Your task to perform on an android device: find photos in the google photos app Image 0: 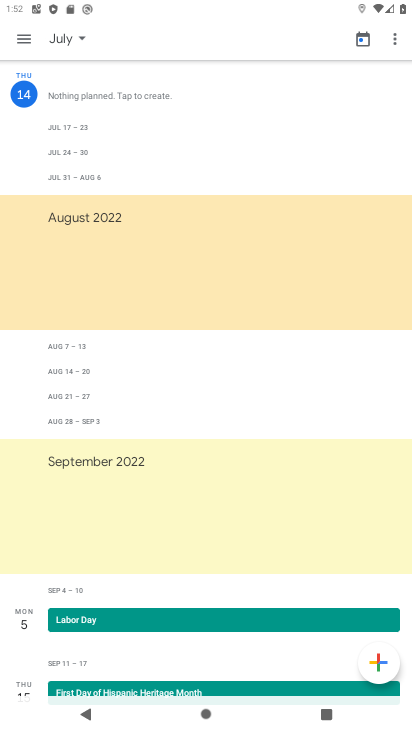
Step 0: press home button
Your task to perform on an android device: find photos in the google photos app Image 1: 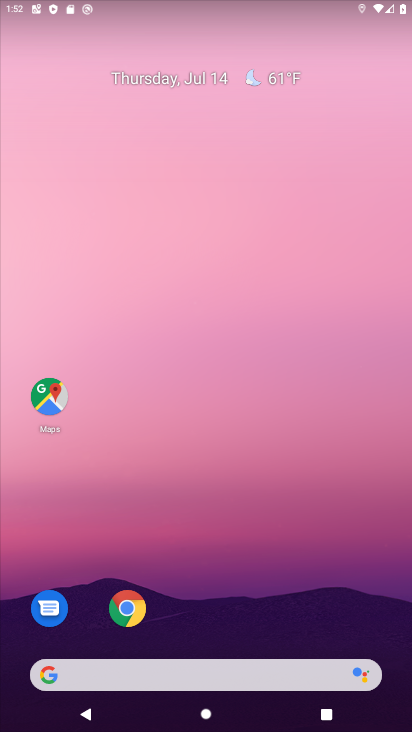
Step 1: drag from (239, 672) to (174, 180)
Your task to perform on an android device: find photos in the google photos app Image 2: 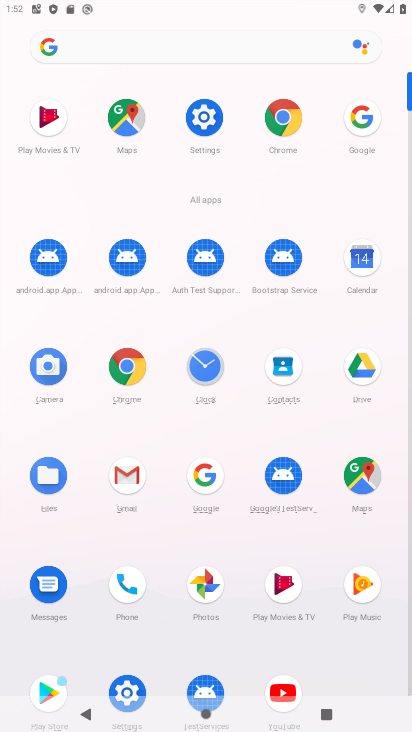
Step 2: drag from (178, 677) to (154, 433)
Your task to perform on an android device: find photos in the google photos app Image 3: 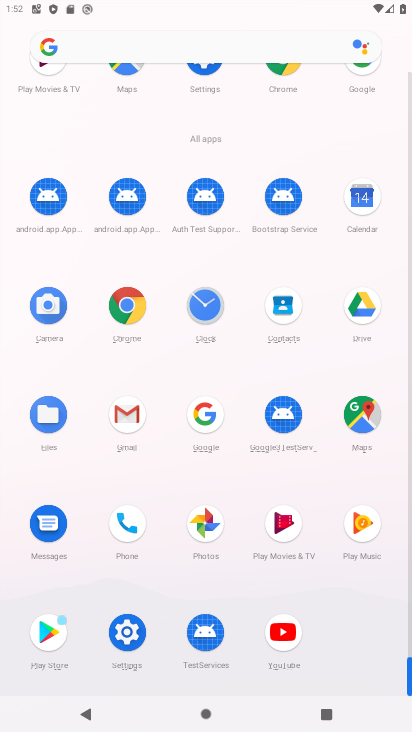
Step 3: click (209, 526)
Your task to perform on an android device: find photos in the google photos app Image 4: 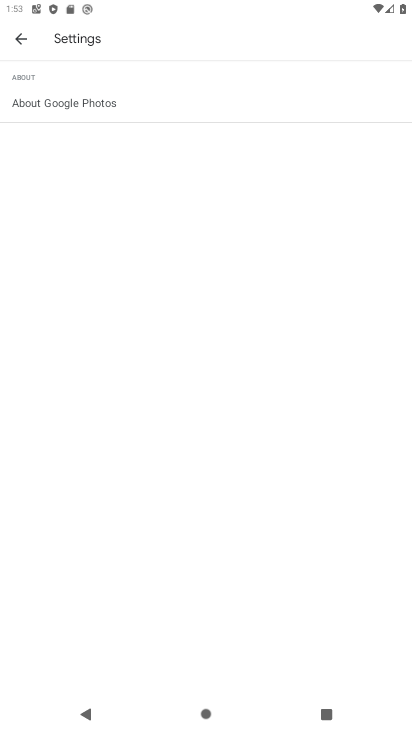
Step 4: press back button
Your task to perform on an android device: find photos in the google photos app Image 5: 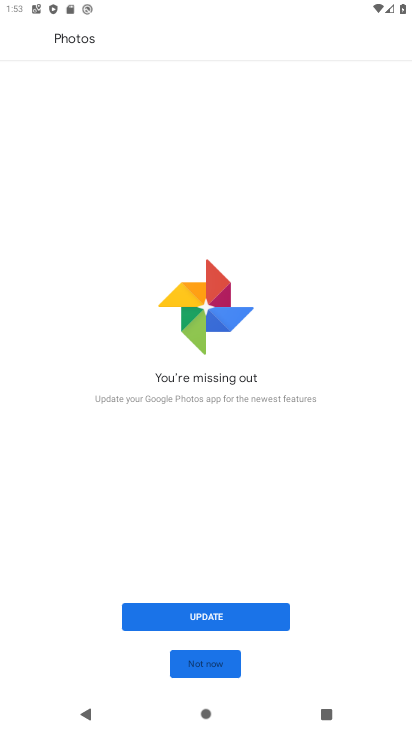
Step 5: click (200, 613)
Your task to perform on an android device: find photos in the google photos app Image 6: 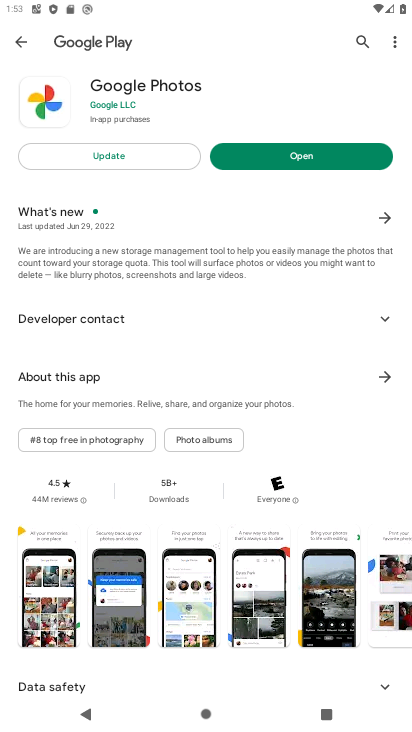
Step 6: click (122, 155)
Your task to perform on an android device: find photos in the google photos app Image 7: 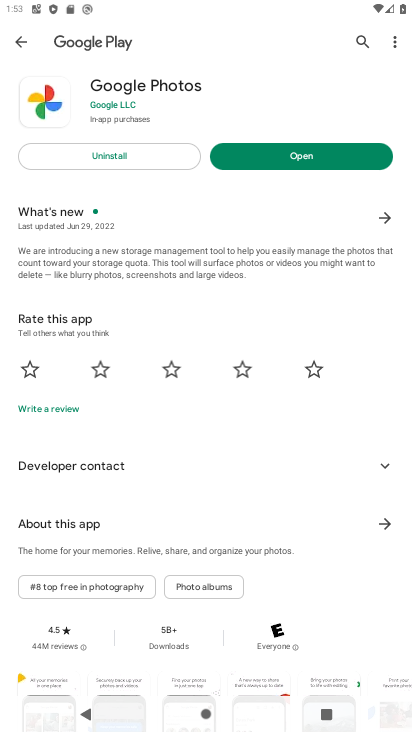
Step 7: click (301, 155)
Your task to perform on an android device: find photos in the google photos app Image 8: 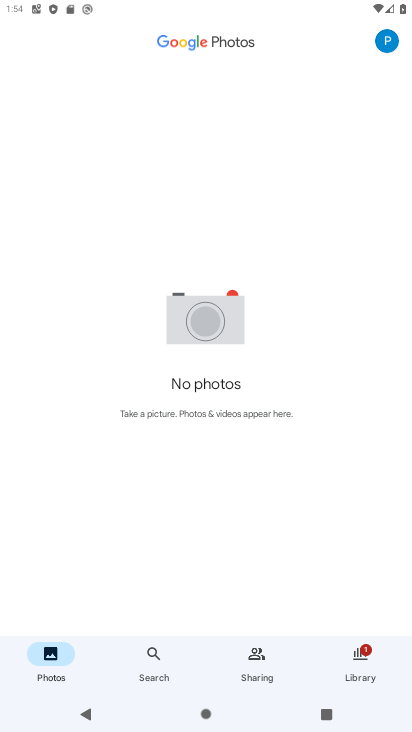
Step 8: click (154, 650)
Your task to perform on an android device: find photos in the google photos app Image 9: 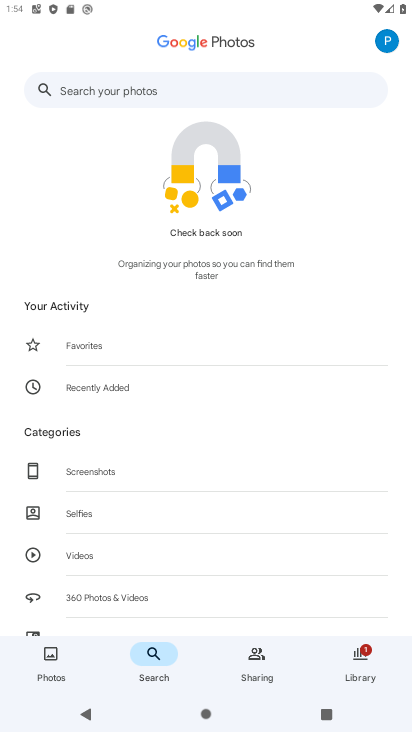
Step 9: click (73, 348)
Your task to perform on an android device: find photos in the google photos app Image 10: 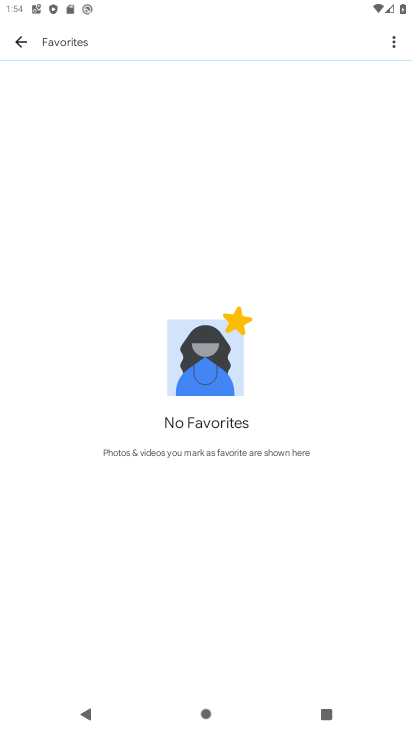
Step 10: press back button
Your task to perform on an android device: find photos in the google photos app Image 11: 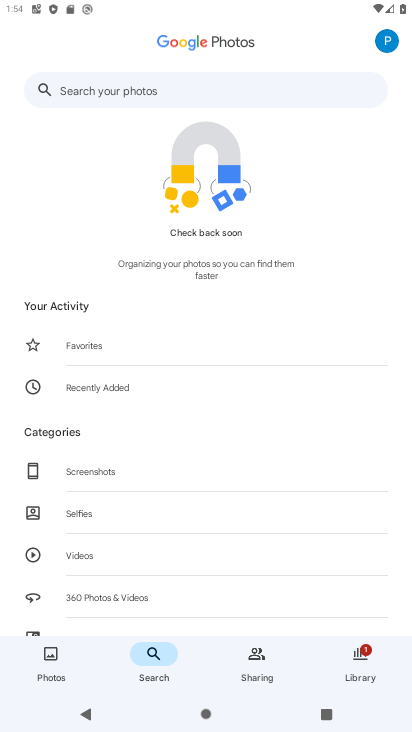
Step 11: click (123, 395)
Your task to perform on an android device: find photos in the google photos app Image 12: 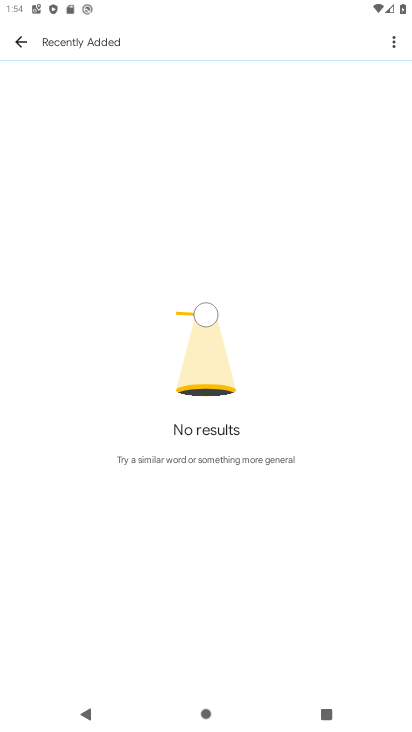
Step 12: press back button
Your task to perform on an android device: find photos in the google photos app Image 13: 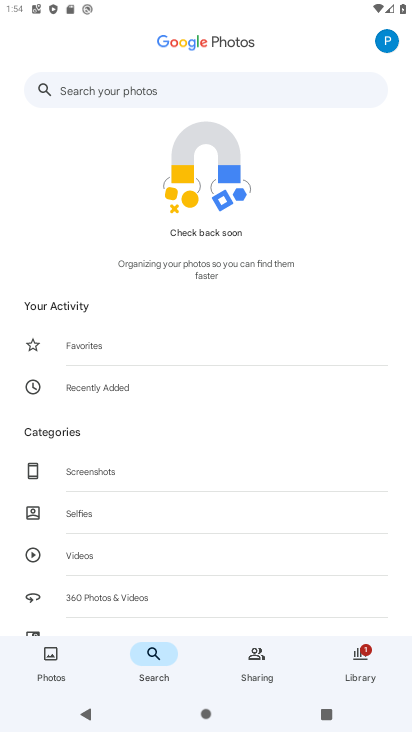
Step 13: click (90, 475)
Your task to perform on an android device: find photos in the google photos app Image 14: 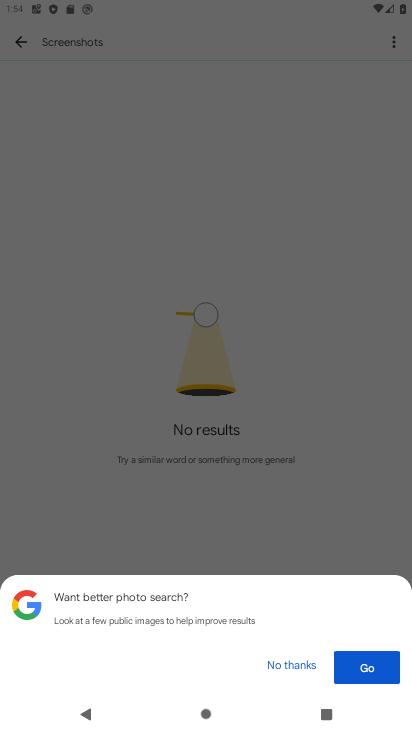
Step 14: click (293, 669)
Your task to perform on an android device: find photos in the google photos app Image 15: 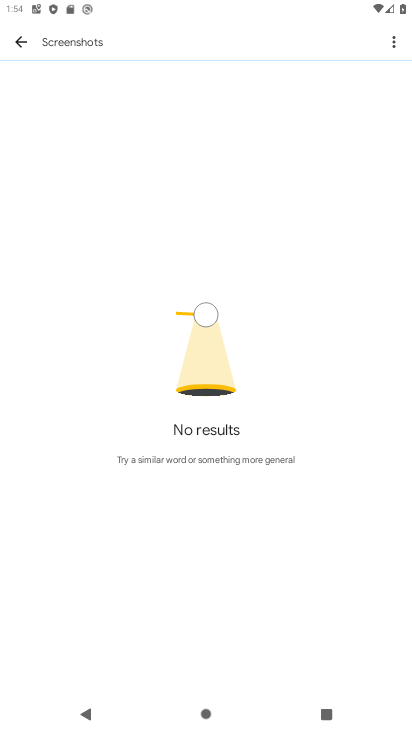
Step 15: press back button
Your task to perform on an android device: find photos in the google photos app Image 16: 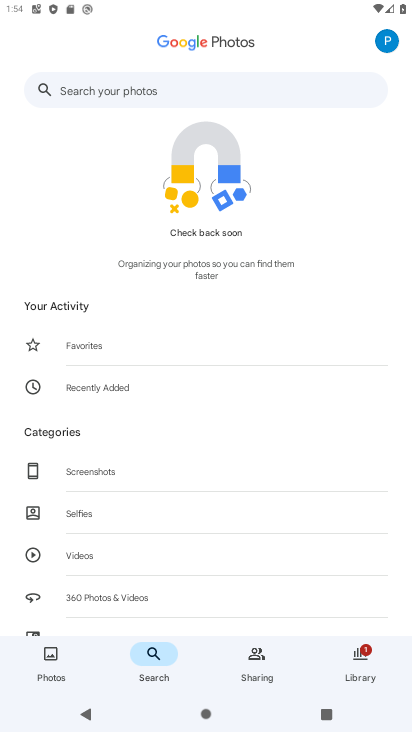
Step 16: drag from (110, 602) to (171, 429)
Your task to perform on an android device: find photos in the google photos app Image 17: 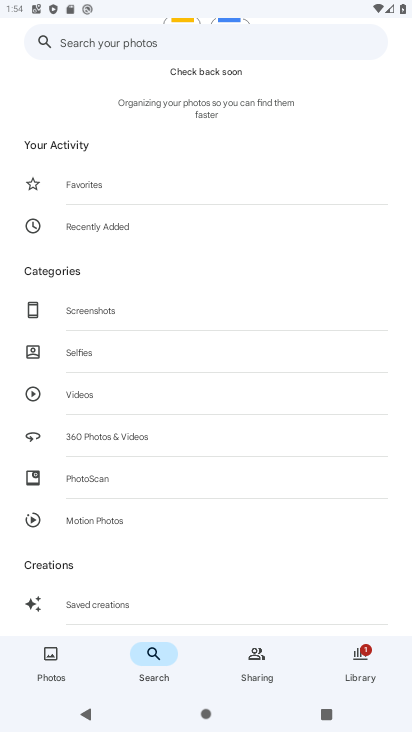
Step 17: click (107, 519)
Your task to perform on an android device: find photos in the google photos app Image 18: 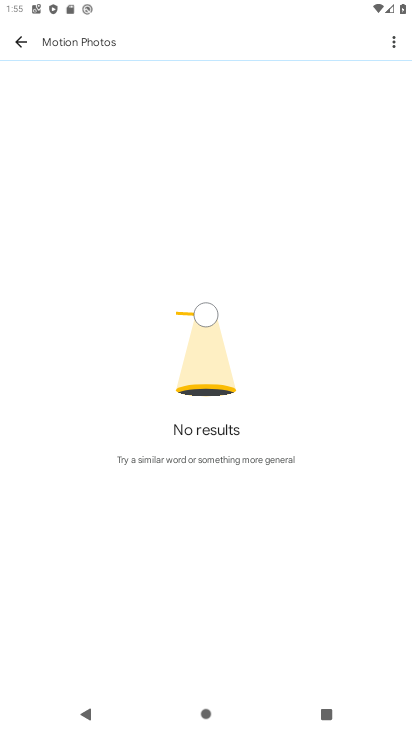
Step 18: task complete